Your task to perform on an android device: What is the recent news? Image 0: 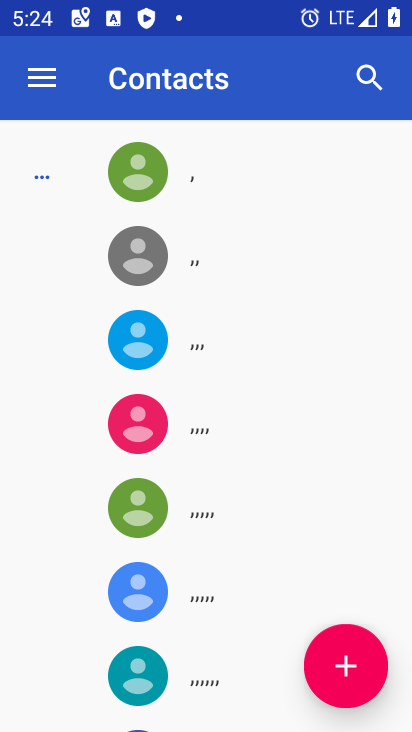
Step 0: press home button
Your task to perform on an android device: What is the recent news? Image 1: 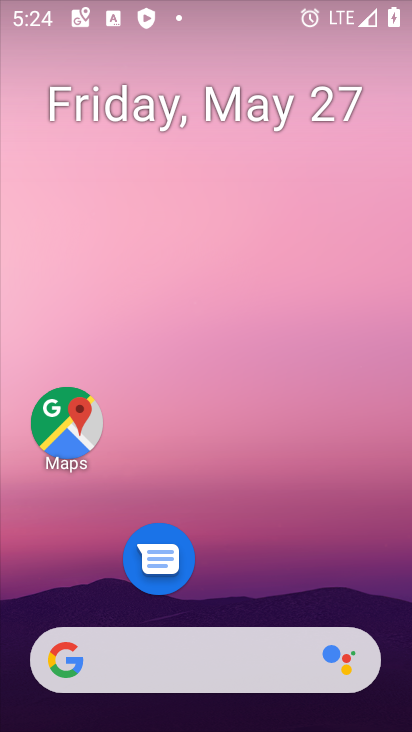
Step 1: drag from (307, 644) to (346, 0)
Your task to perform on an android device: What is the recent news? Image 2: 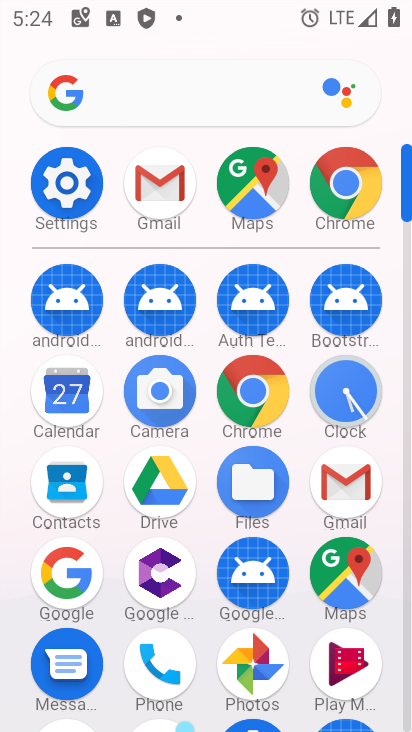
Step 2: click (245, 396)
Your task to perform on an android device: What is the recent news? Image 3: 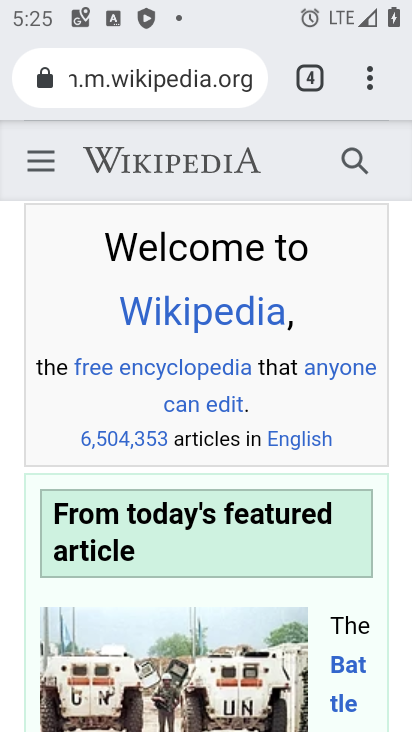
Step 3: press home button
Your task to perform on an android device: What is the recent news? Image 4: 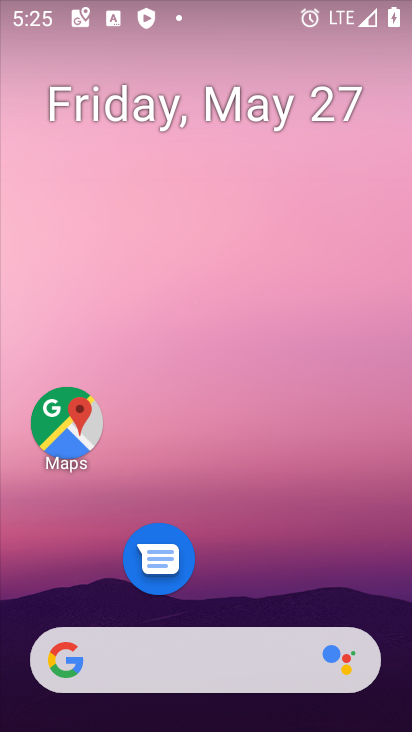
Step 4: drag from (272, 662) to (241, 5)
Your task to perform on an android device: What is the recent news? Image 5: 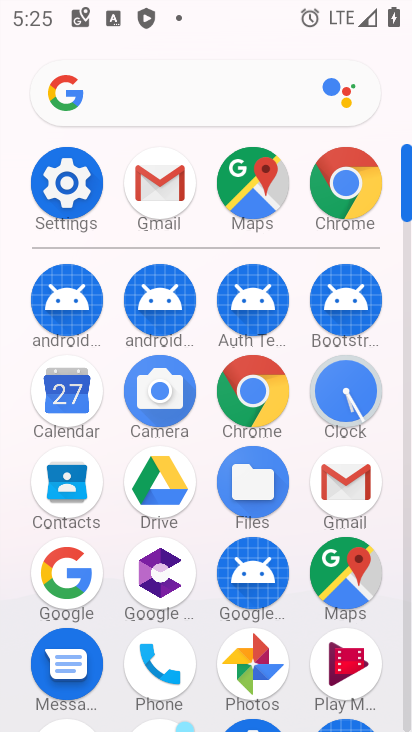
Step 5: click (278, 391)
Your task to perform on an android device: What is the recent news? Image 6: 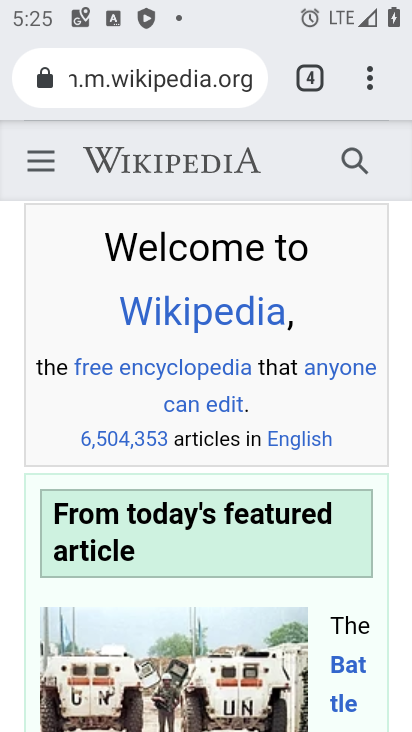
Step 6: click (200, 81)
Your task to perform on an android device: What is the recent news? Image 7: 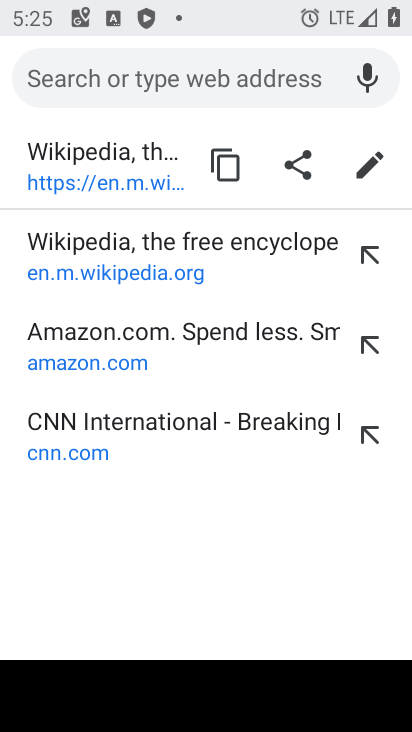
Step 7: type "recent news"
Your task to perform on an android device: What is the recent news? Image 8: 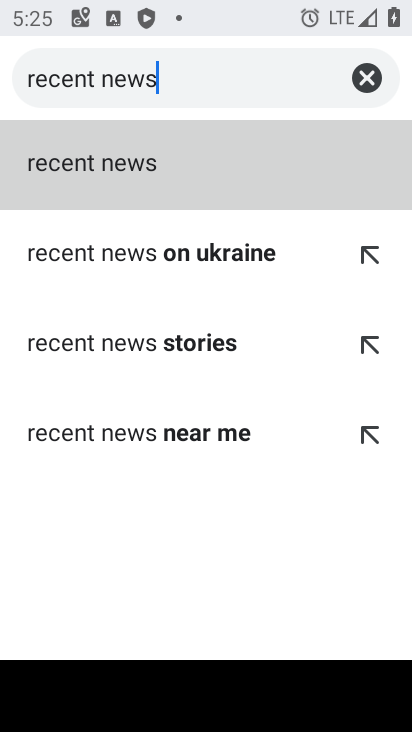
Step 8: click (92, 168)
Your task to perform on an android device: What is the recent news? Image 9: 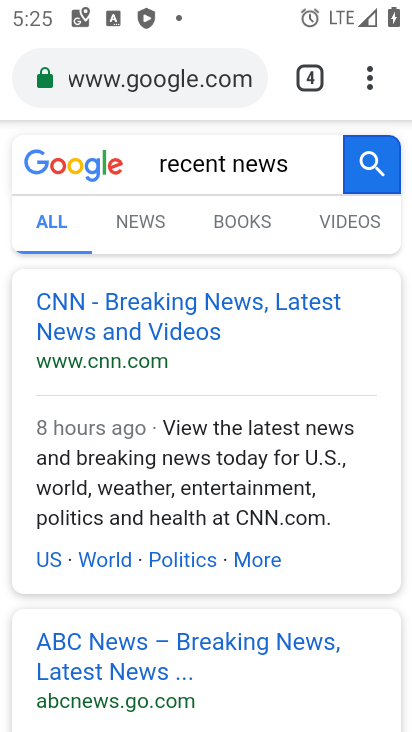
Step 9: task complete